Your task to perform on an android device: allow cookies in the chrome app Image 0: 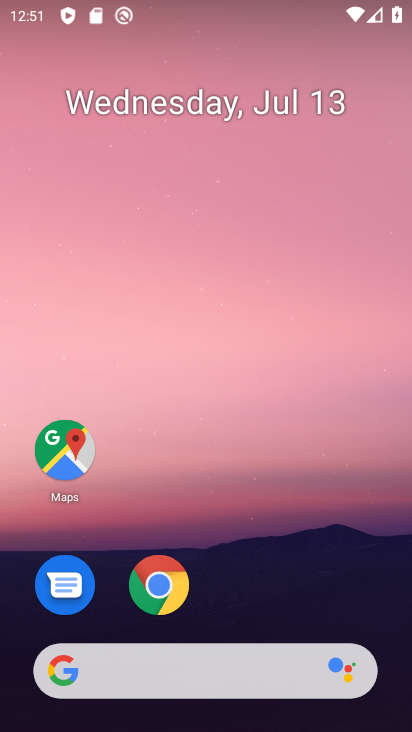
Step 0: click (150, 602)
Your task to perform on an android device: allow cookies in the chrome app Image 1: 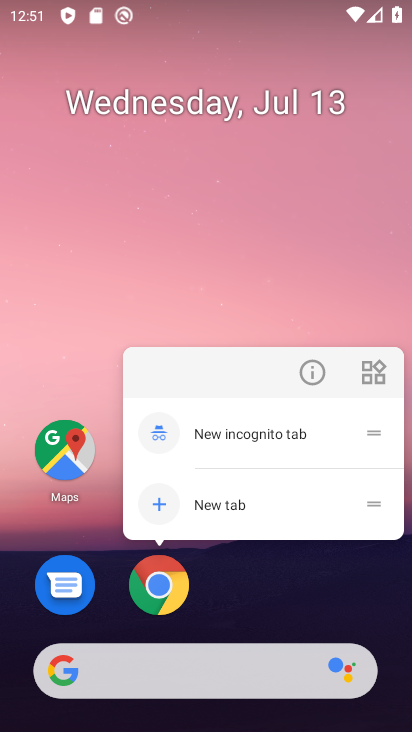
Step 1: click (161, 592)
Your task to perform on an android device: allow cookies in the chrome app Image 2: 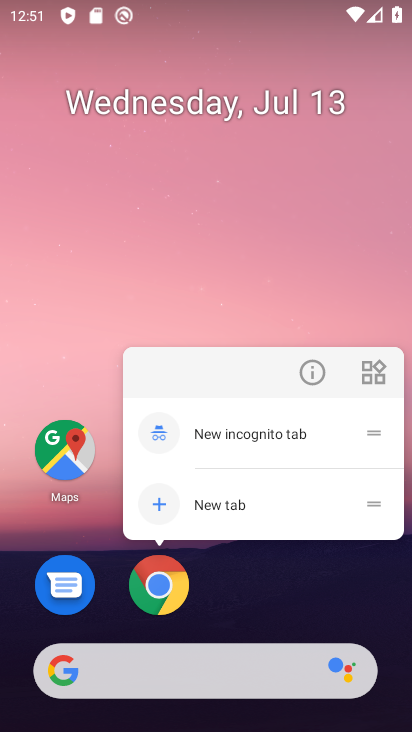
Step 2: click (163, 589)
Your task to perform on an android device: allow cookies in the chrome app Image 3: 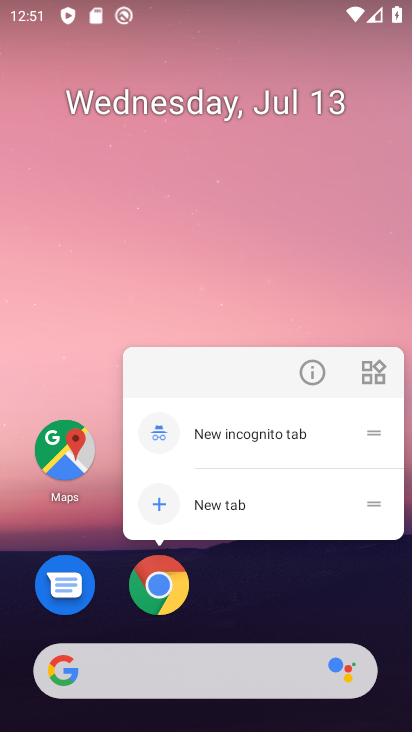
Step 3: click (163, 584)
Your task to perform on an android device: allow cookies in the chrome app Image 4: 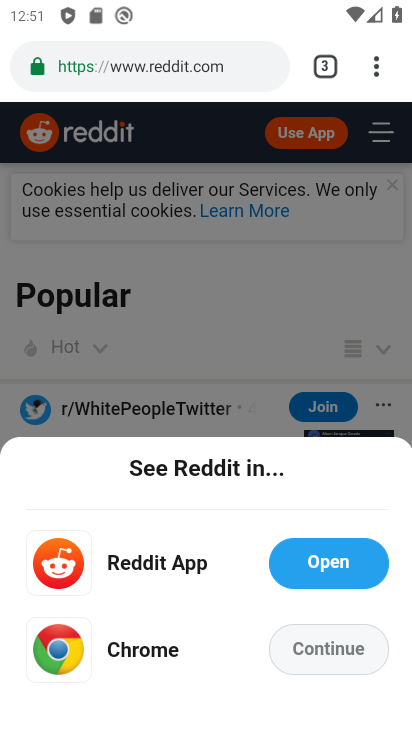
Step 4: drag from (377, 72) to (191, 585)
Your task to perform on an android device: allow cookies in the chrome app Image 5: 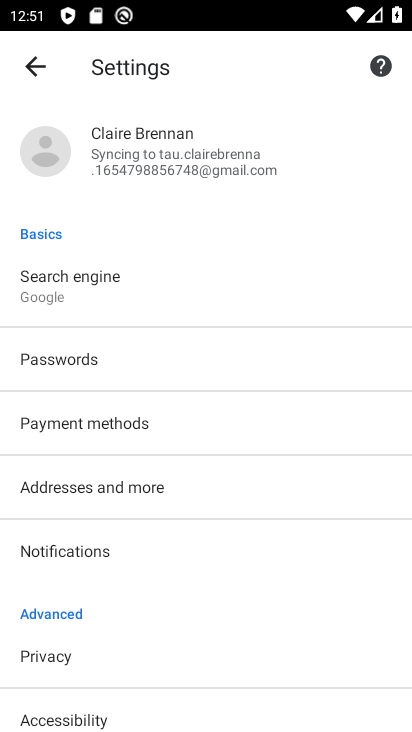
Step 5: drag from (114, 631) to (286, 218)
Your task to perform on an android device: allow cookies in the chrome app Image 6: 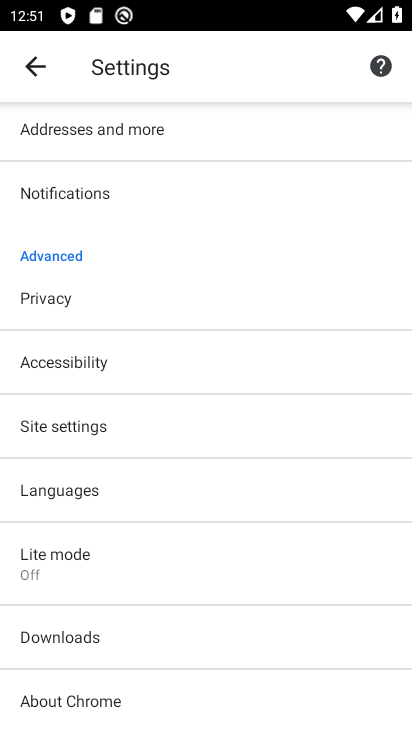
Step 6: click (100, 426)
Your task to perform on an android device: allow cookies in the chrome app Image 7: 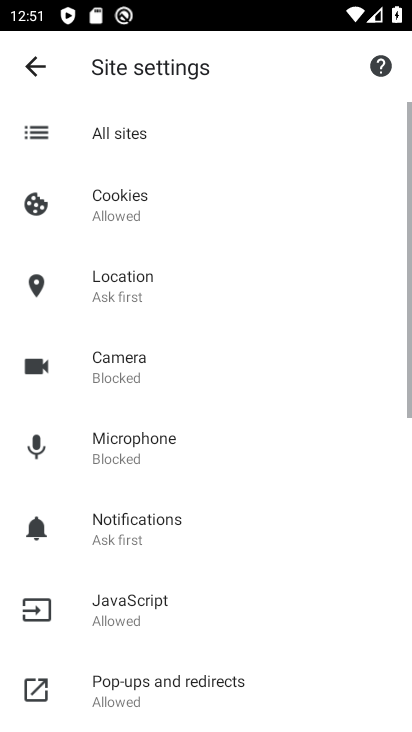
Step 7: click (141, 201)
Your task to perform on an android device: allow cookies in the chrome app Image 8: 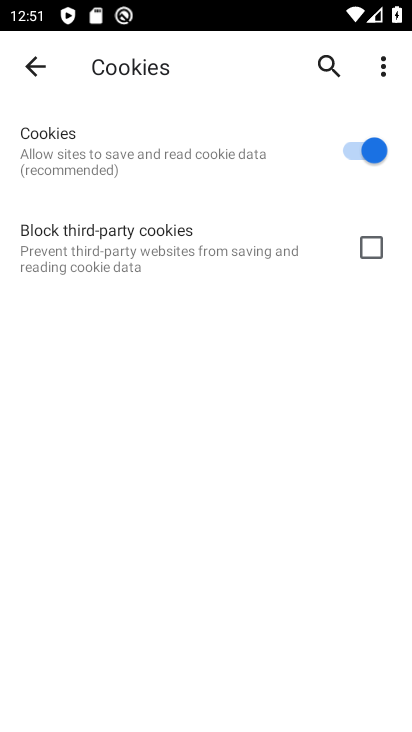
Step 8: task complete